Your task to perform on an android device: uninstall "Venmo" Image 0: 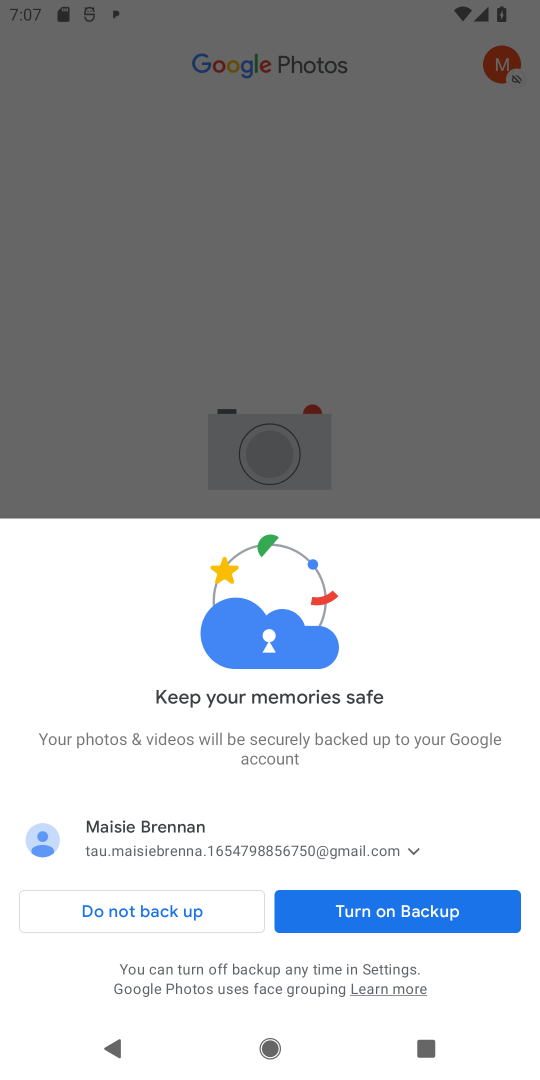
Step 0: press home button
Your task to perform on an android device: uninstall "Venmo" Image 1: 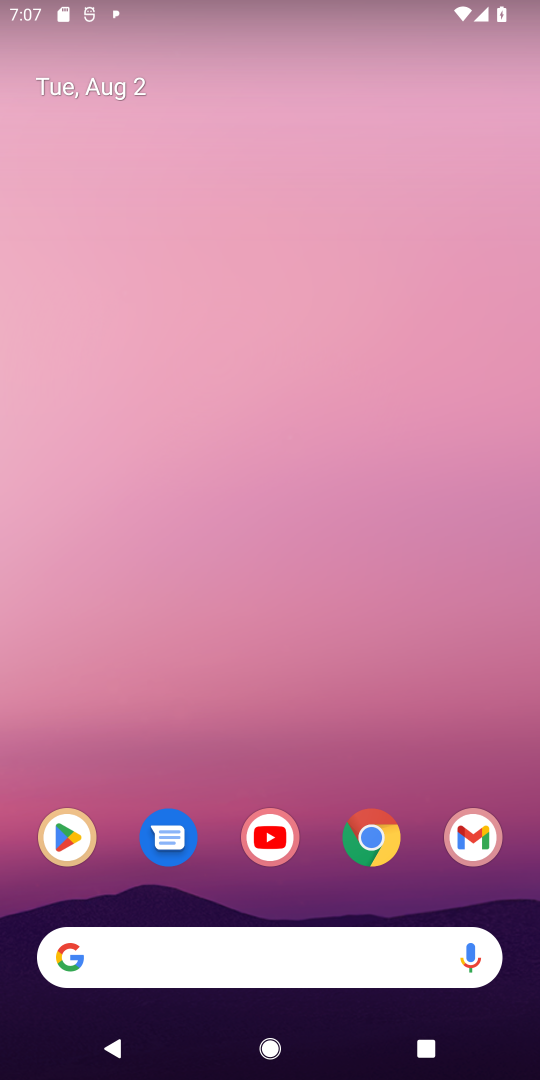
Step 1: click (74, 841)
Your task to perform on an android device: uninstall "Venmo" Image 2: 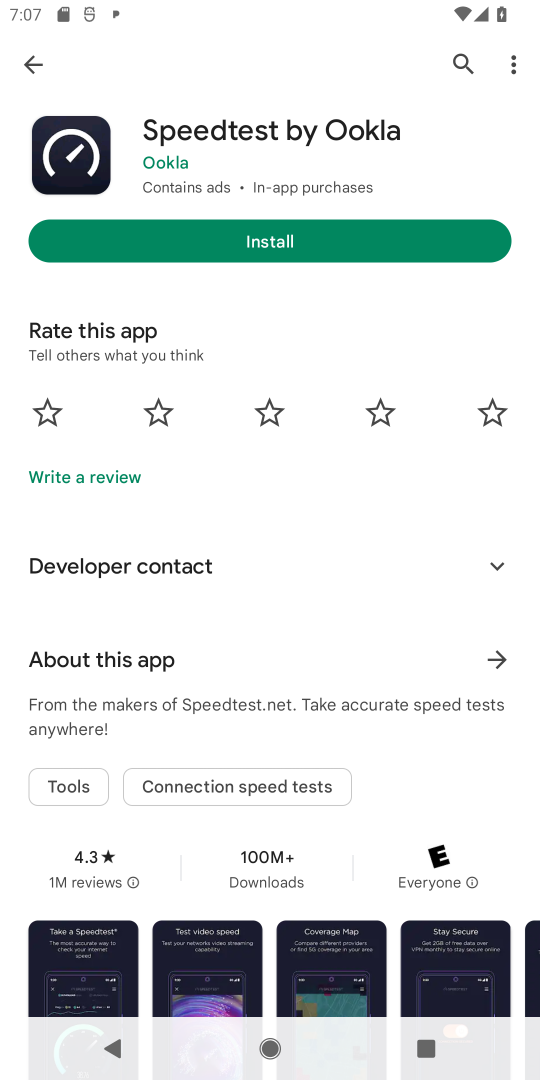
Step 2: click (462, 61)
Your task to perform on an android device: uninstall "Venmo" Image 3: 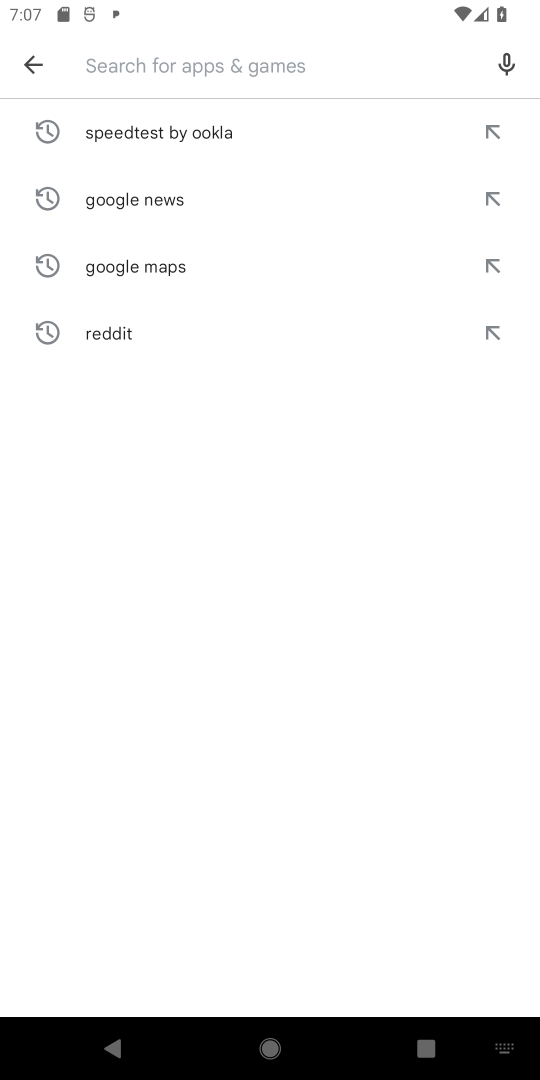
Step 3: type "Venmo"
Your task to perform on an android device: uninstall "Venmo" Image 4: 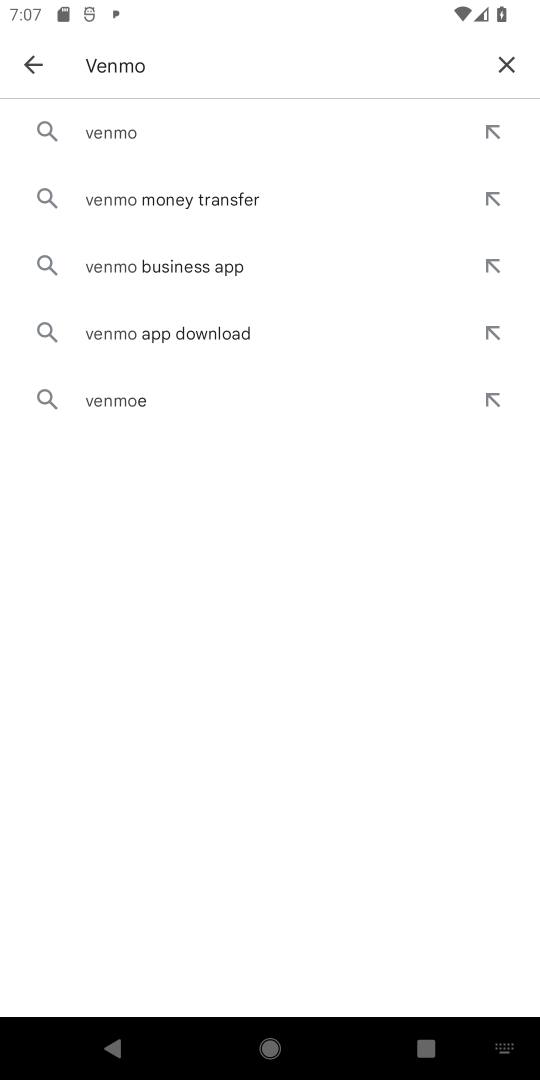
Step 4: click (100, 145)
Your task to perform on an android device: uninstall "Venmo" Image 5: 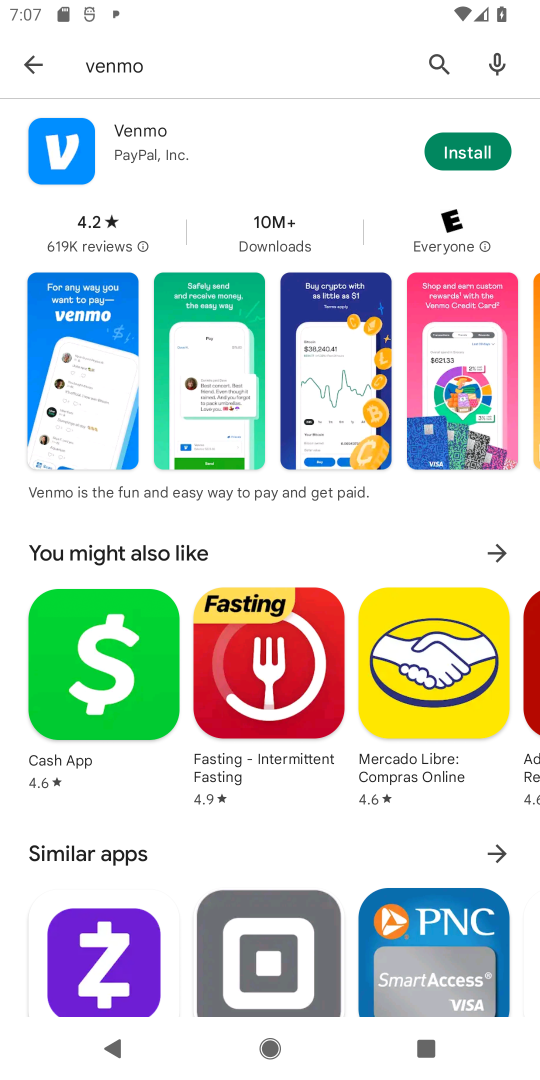
Step 5: task complete